Your task to perform on an android device: change notification settings in the gmail app Image 0: 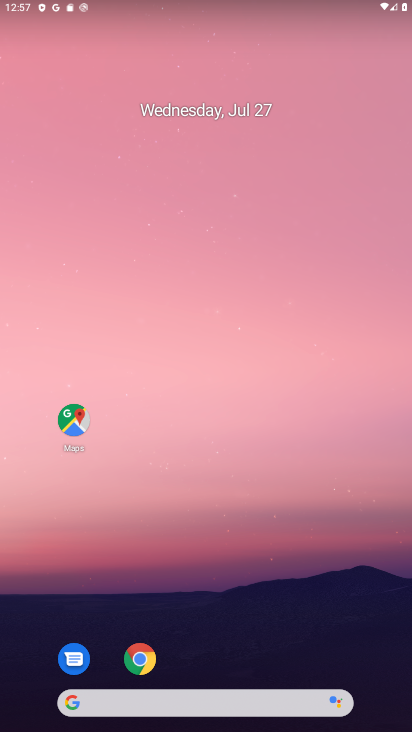
Step 0: drag from (286, 663) to (187, 171)
Your task to perform on an android device: change notification settings in the gmail app Image 1: 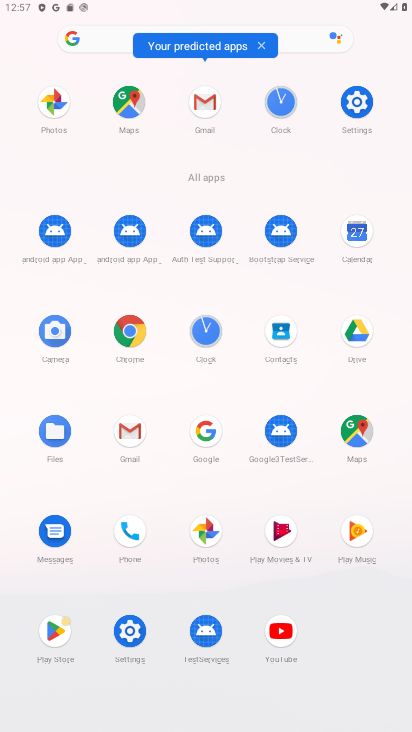
Step 1: click (130, 430)
Your task to perform on an android device: change notification settings in the gmail app Image 2: 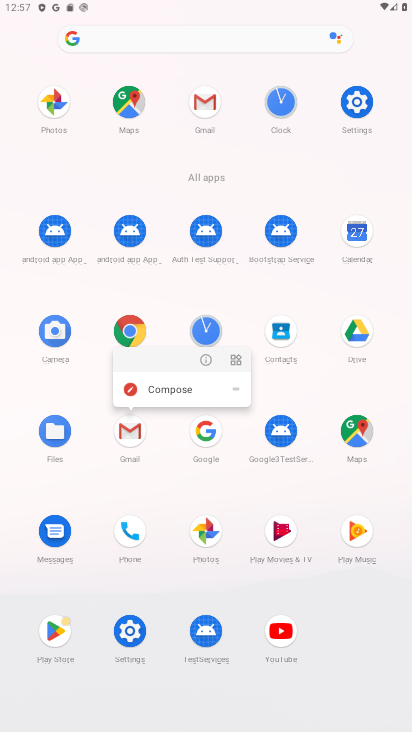
Step 2: click (207, 358)
Your task to perform on an android device: change notification settings in the gmail app Image 3: 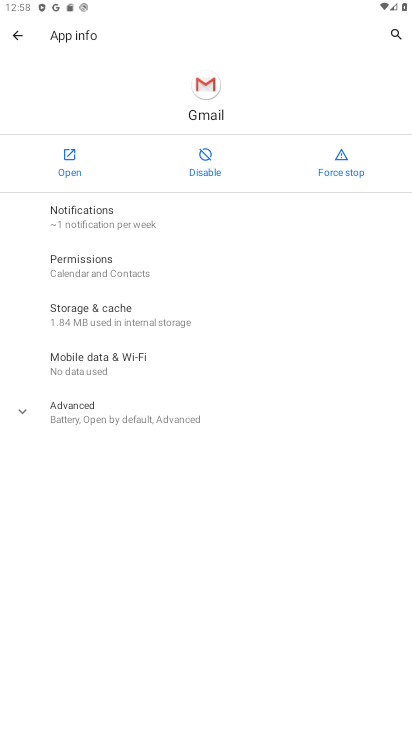
Step 3: click (102, 214)
Your task to perform on an android device: change notification settings in the gmail app Image 4: 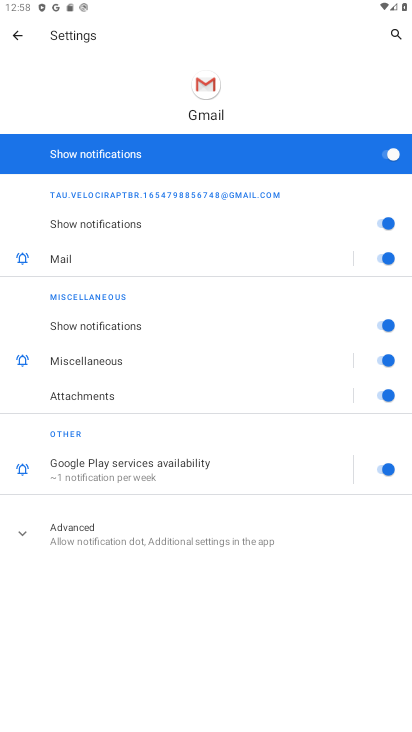
Step 4: click (382, 246)
Your task to perform on an android device: change notification settings in the gmail app Image 5: 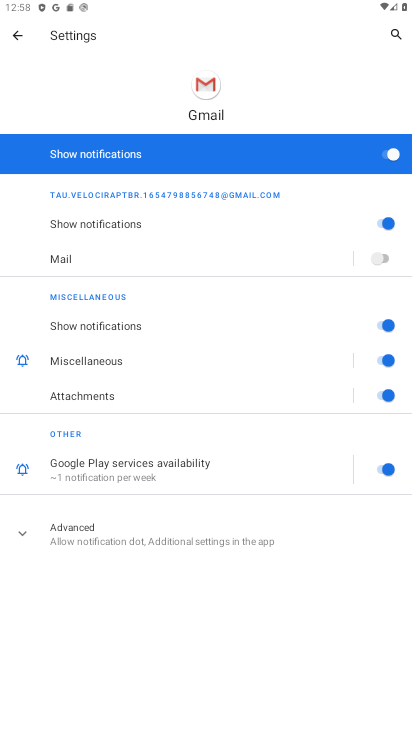
Step 5: click (392, 375)
Your task to perform on an android device: change notification settings in the gmail app Image 6: 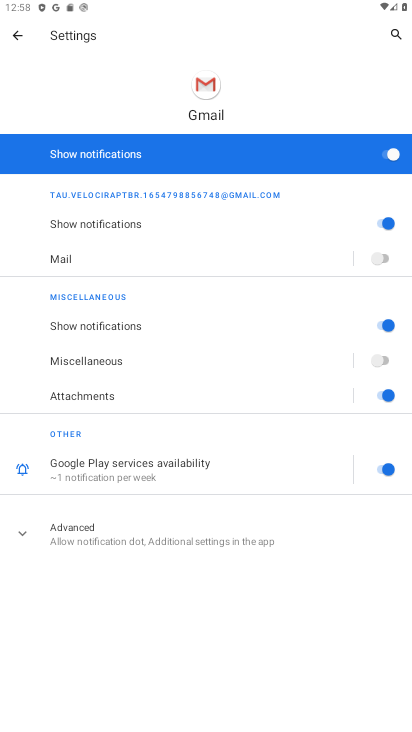
Step 6: task complete